Your task to perform on an android device: Search for flights from Tokyo to Seoul Image 0: 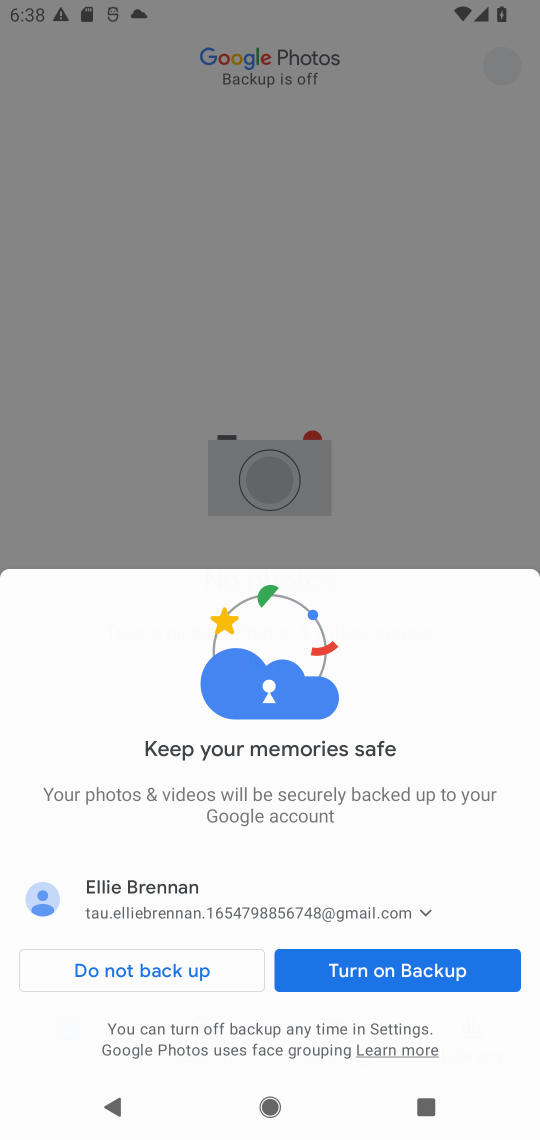
Step 0: press home button
Your task to perform on an android device: Search for flights from Tokyo to Seoul Image 1: 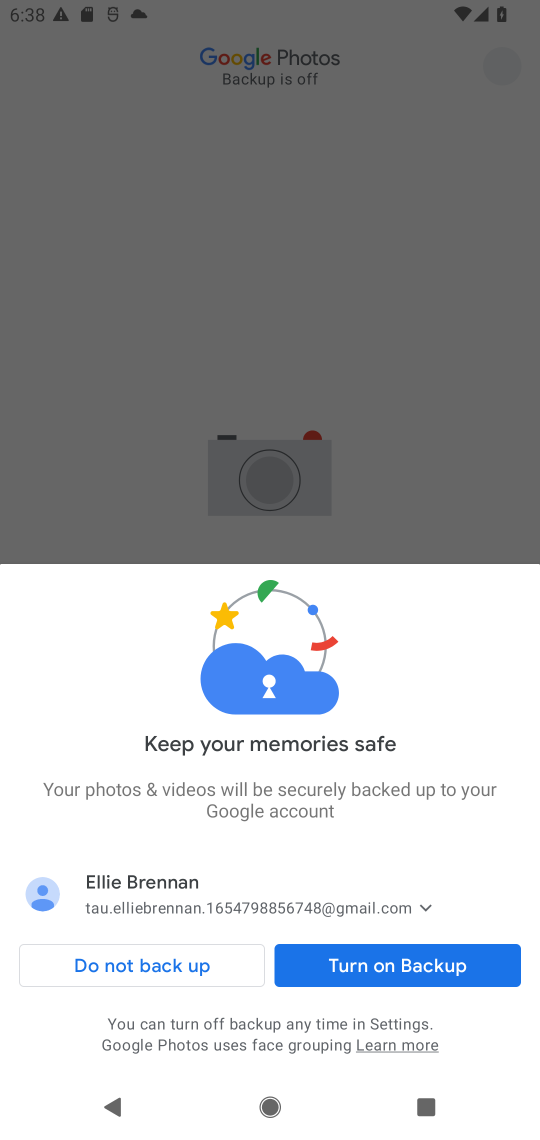
Step 1: press home button
Your task to perform on an android device: Search for flights from Tokyo to Seoul Image 2: 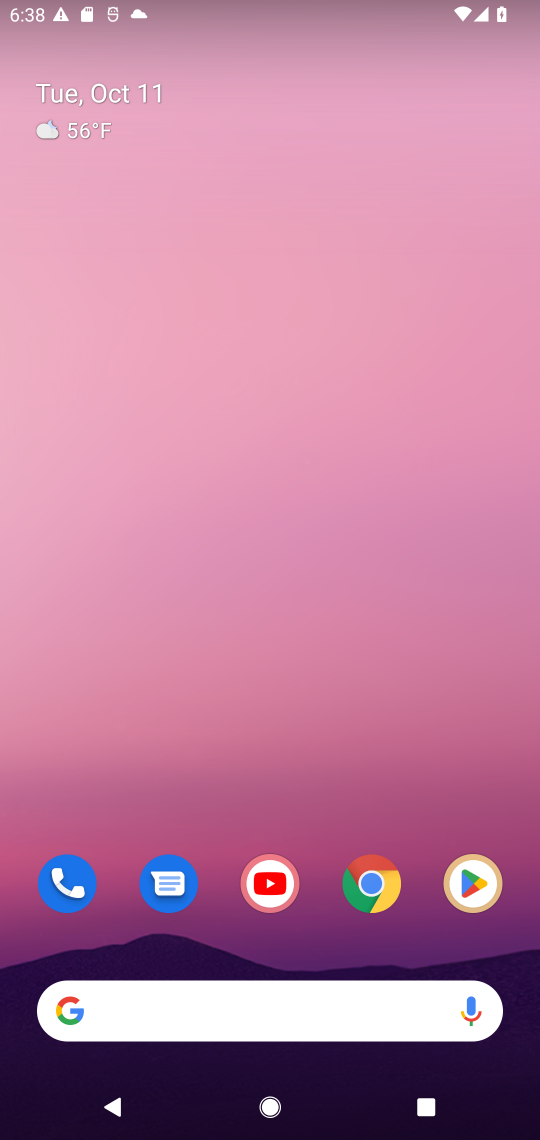
Step 2: drag from (330, 805) to (458, 29)
Your task to perform on an android device: Search for flights from Tokyo to Seoul Image 3: 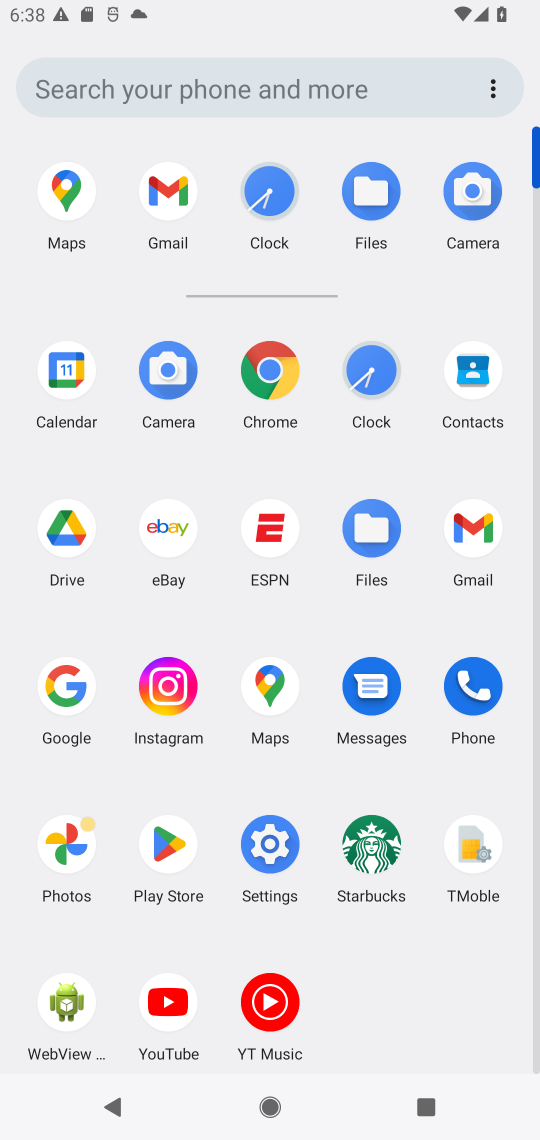
Step 3: click (269, 370)
Your task to perform on an android device: Search for flights from Tokyo to Seoul Image 4: 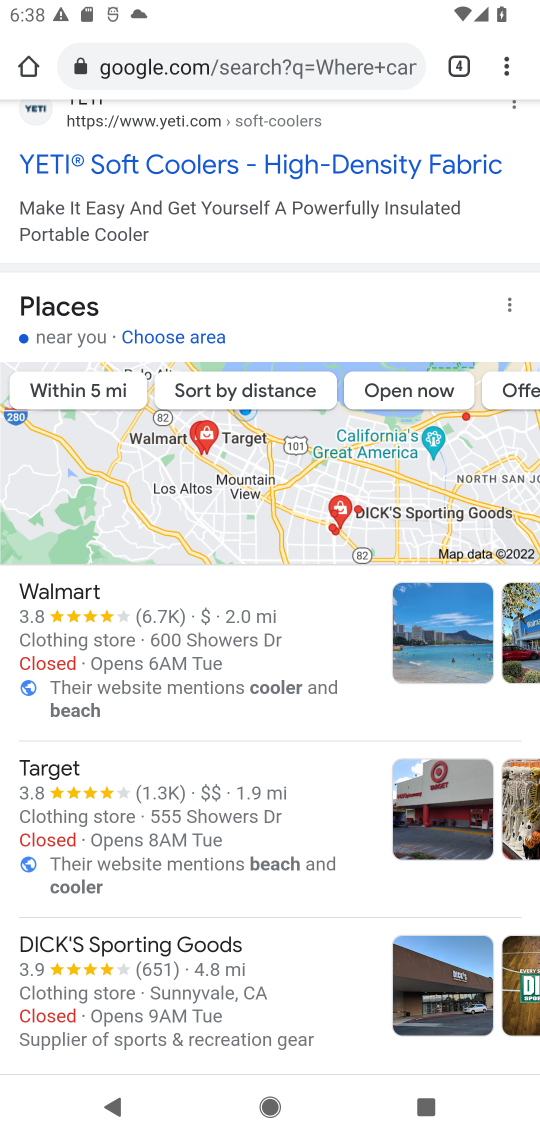
Step 4: click (275, 54)
Your task to perform on an android device: Search for flights from Tokyo to Seoul Image 5: 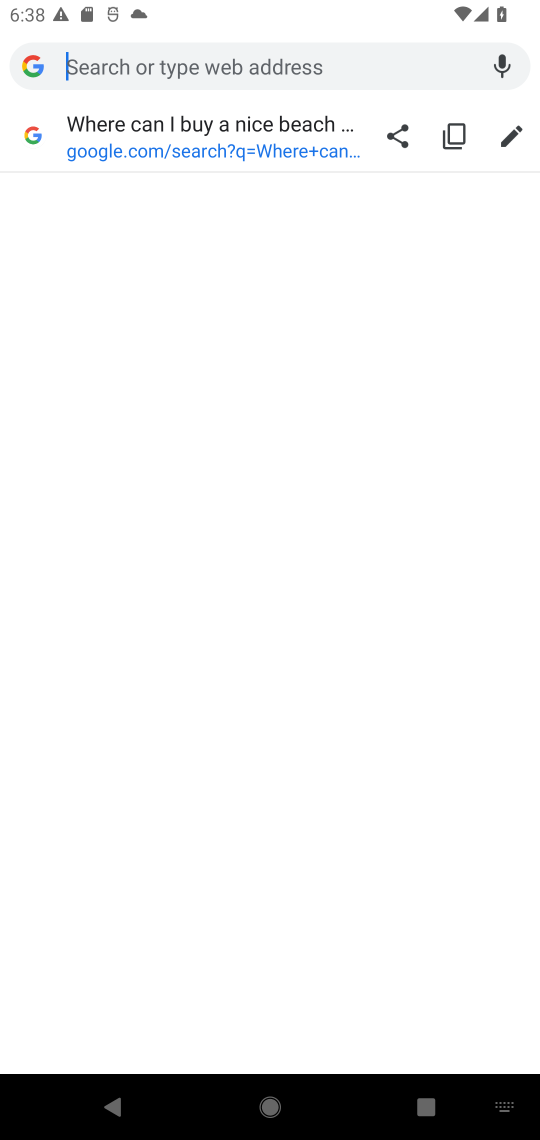
Step 5: type "flights from Tokyo to Seoul"
Your task to perform on an android device: Search for flights from Tokyo to Seoul Image 6: 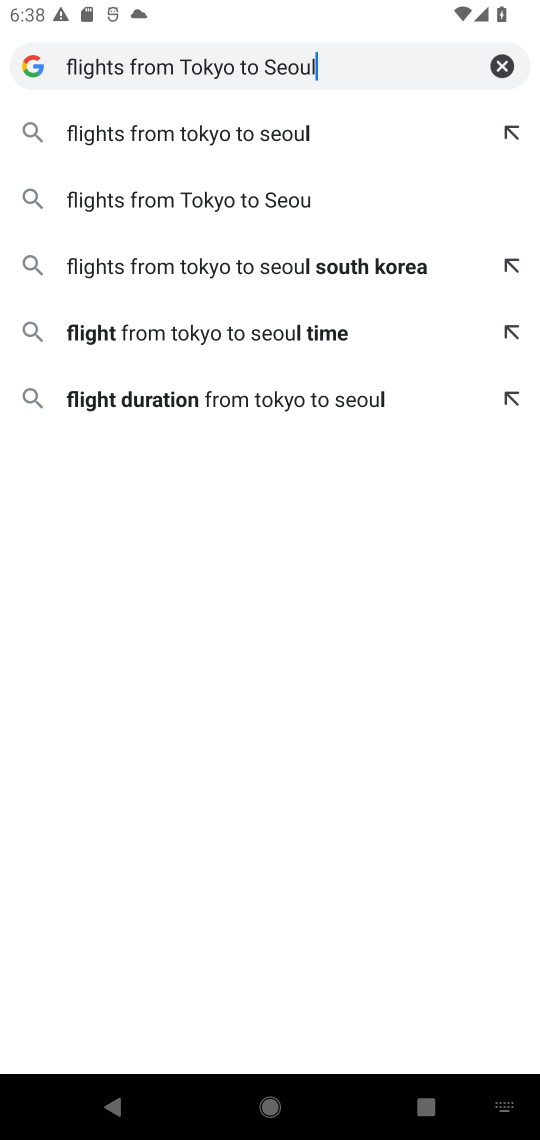
Step 6: press enter
Your task to perform on an android device: Search for flights from Tokyo to Seoul Image 7: 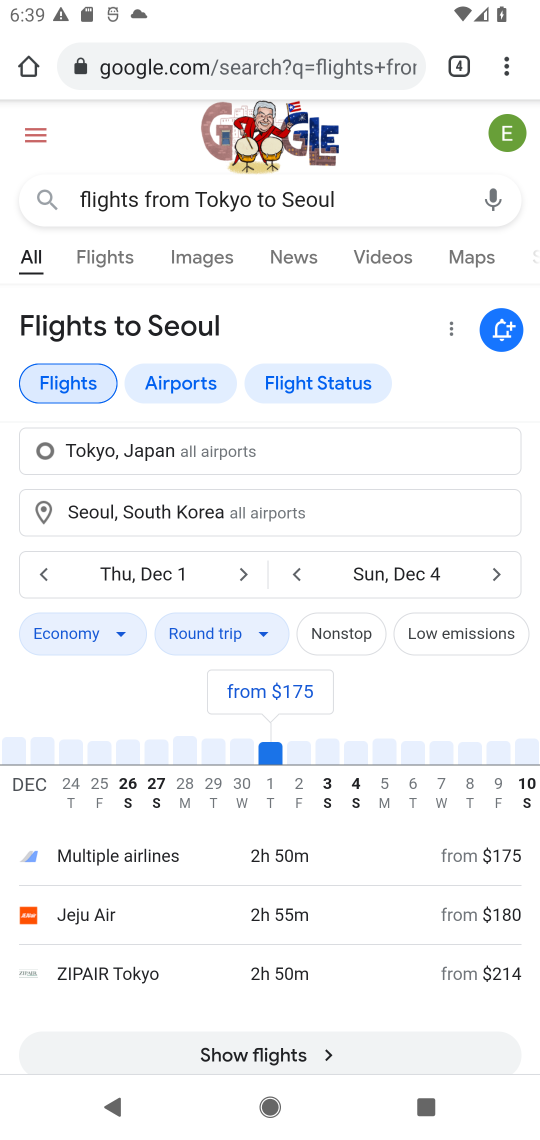
Step 7: task complete